Your task to perform on an android device: Go to internet settings Image 0: 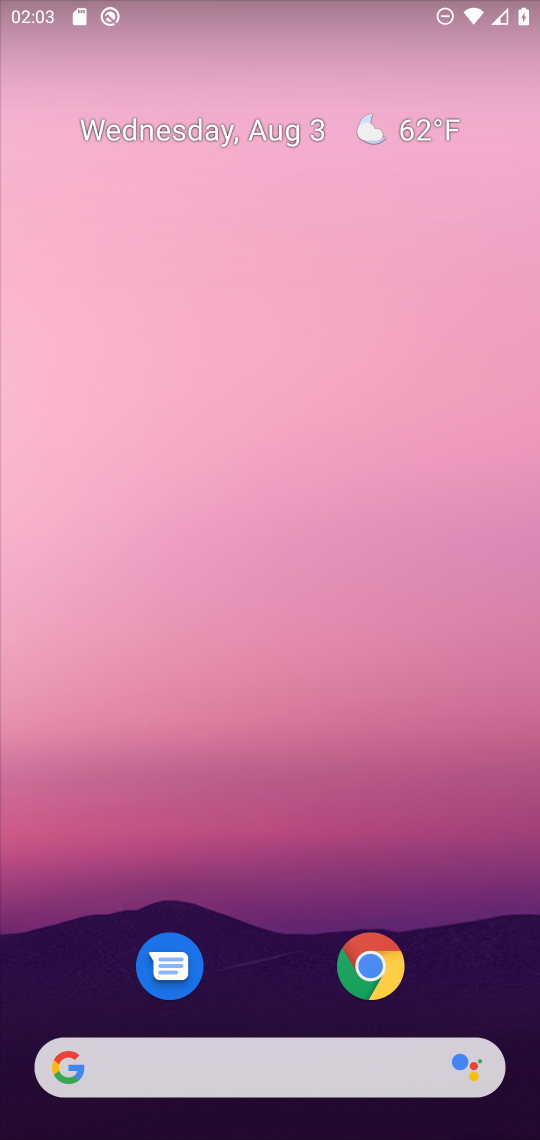
Step 0: drag from (278, 980) to (245, 453)
Your task to perform on an android device: Go to internet settings Image 1: 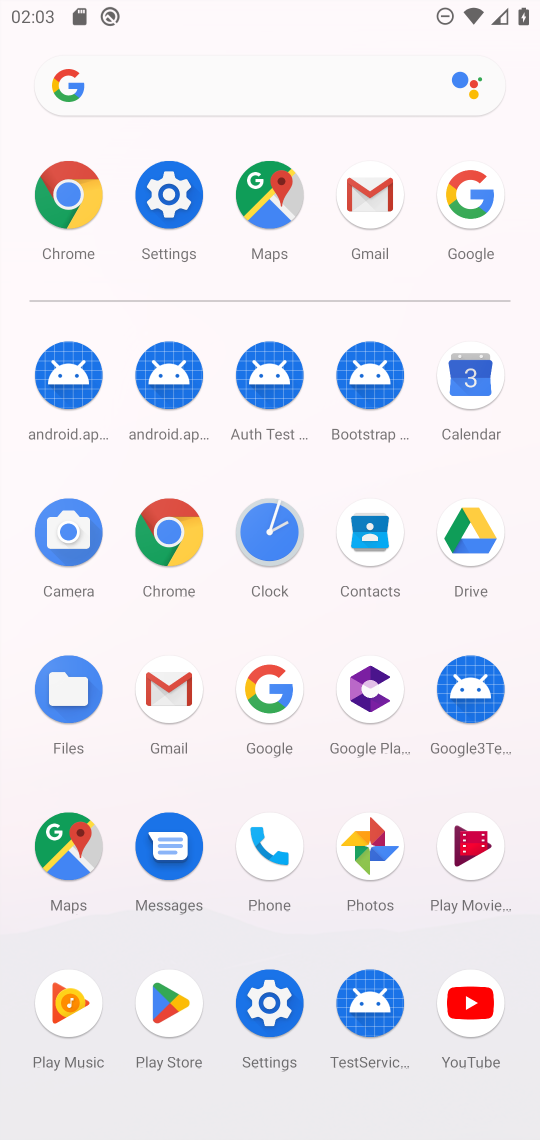
Step 1: click (152, 218)
Your task to perform on an android device: Go to internet settings Image 2: 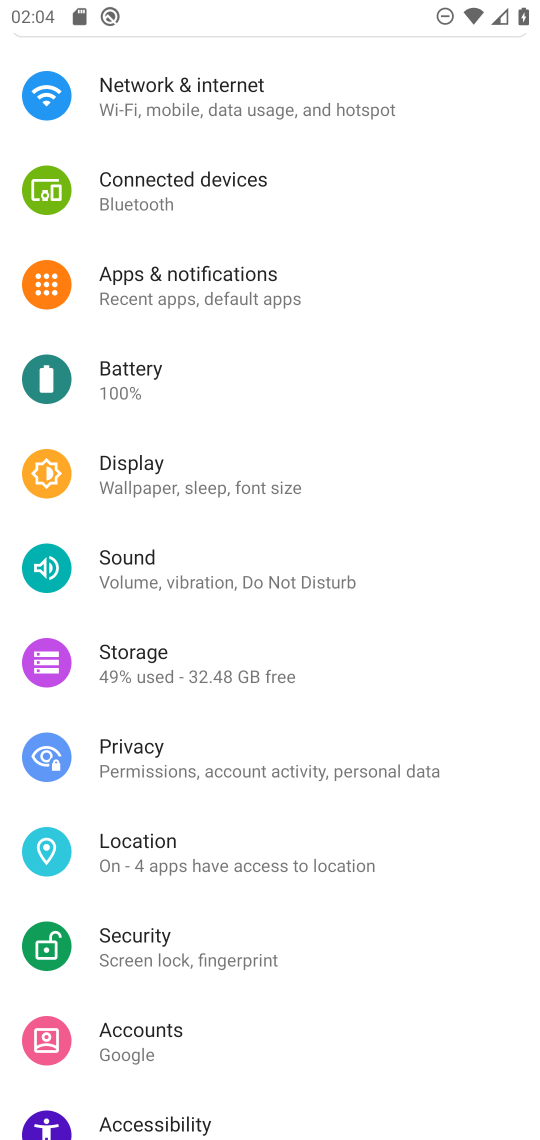
Step 2: drag from (227, 178) to (255, 597)
Your task to perform on an android device: Go to internet settings Image 3: 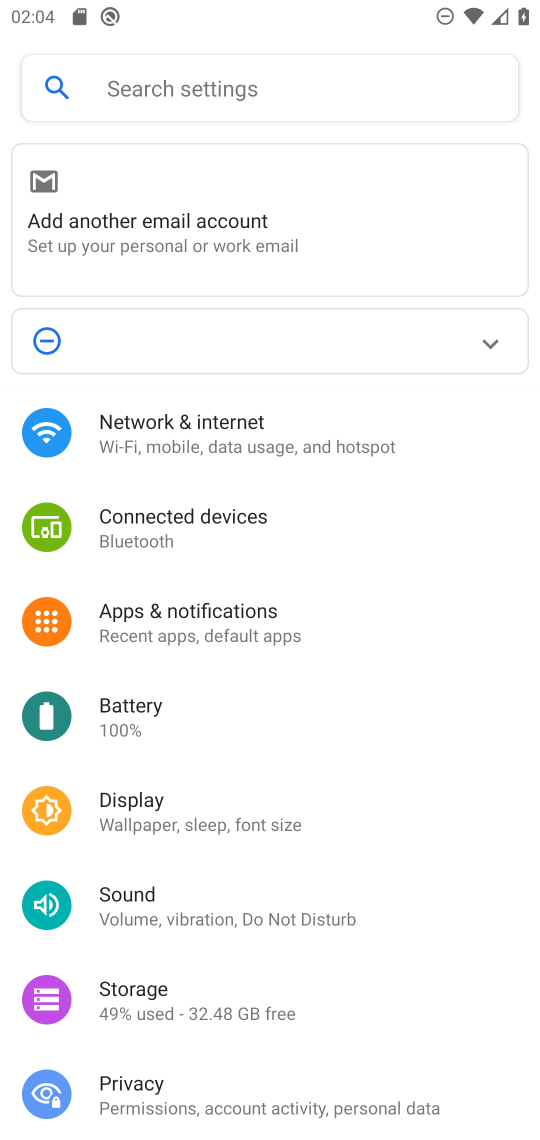
Step 3: click (190, 438)
Your task to perform on an android device: Go to internet settings Image 4: 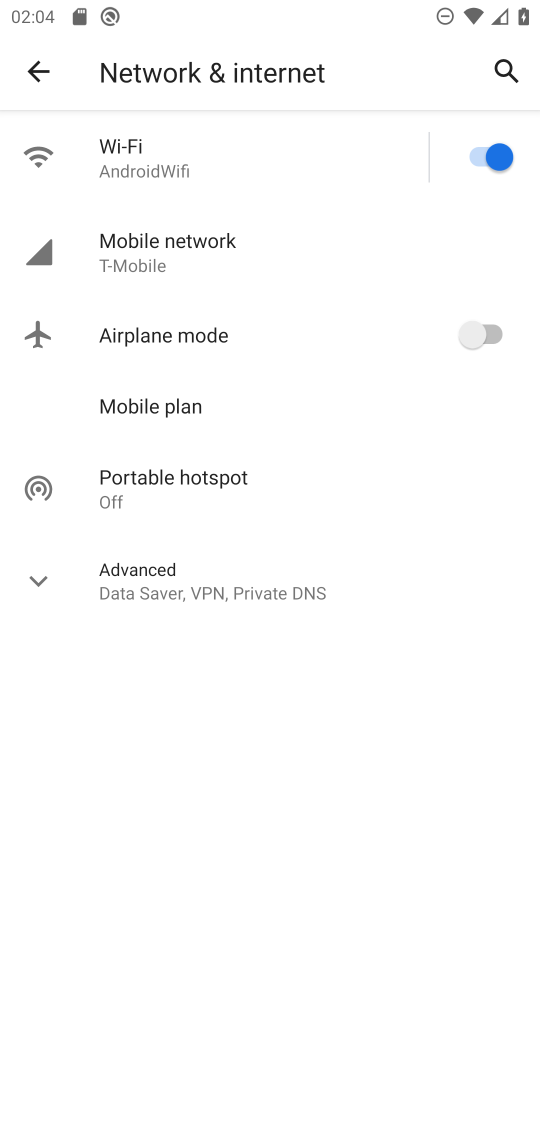
Step 4: task complete